Your task to perform on an android device: Go to Android settings Image 0: 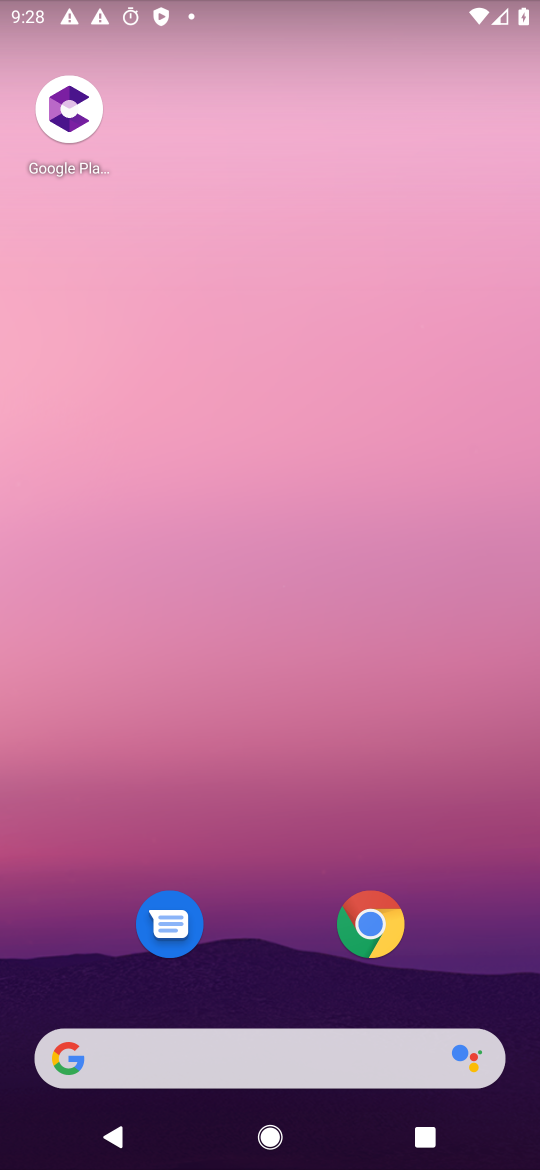
Step 0: drag from (332, 290) to (353, 208)
Your task to perform on an android device: Go to Android settings Image 1: 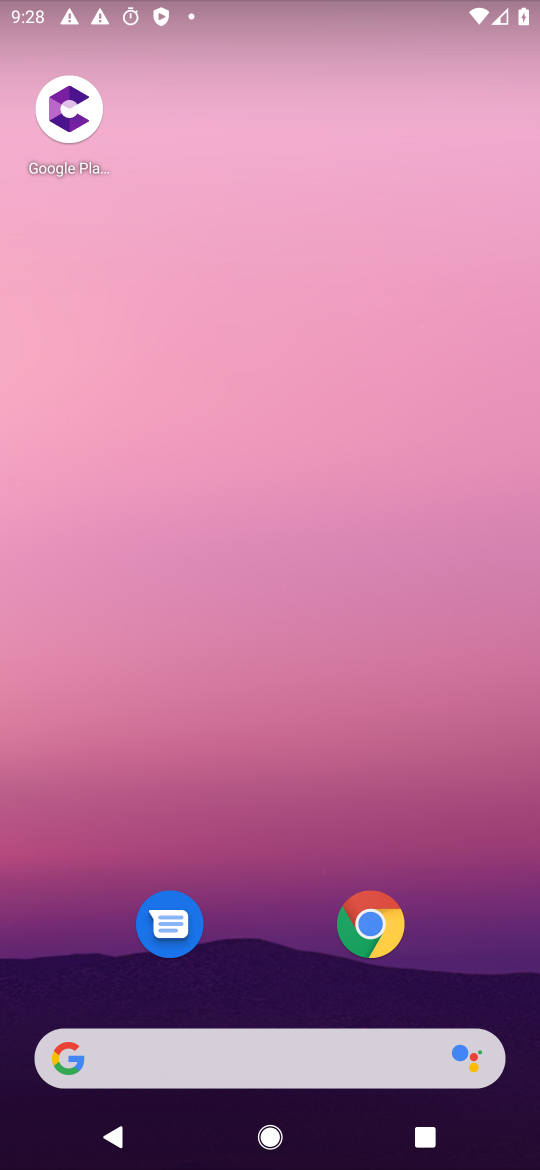
Step 1: drag from (267, 931) to (277, 166)
Your task to perform on an android device: Go to Android settings Image 2: 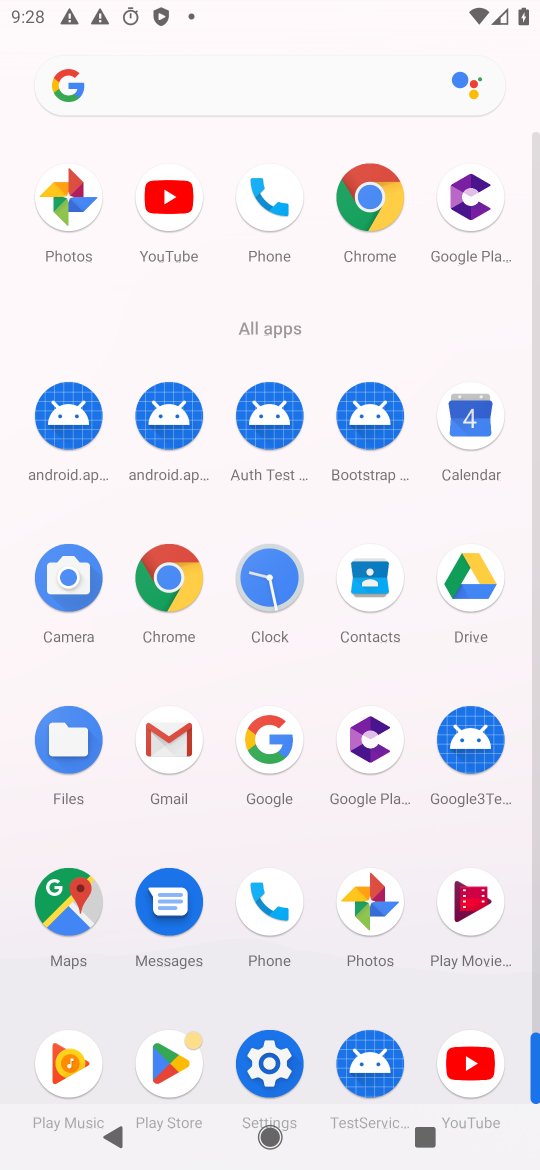
Step 2: click (269, 1038)
Your task to perform on an android device: Go to Android settings Image 3: 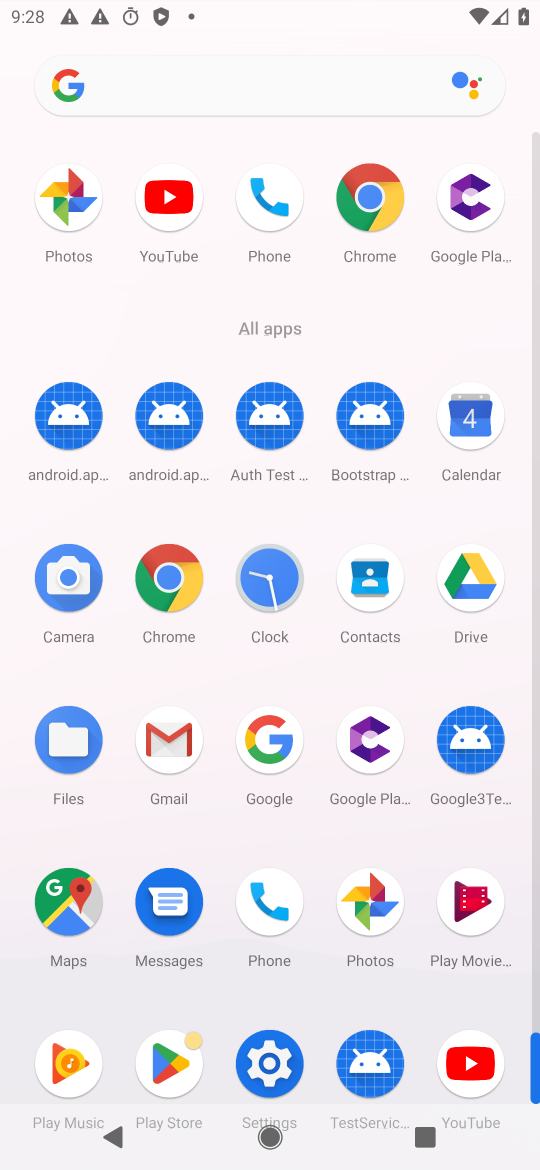
Step 3: click (262, 1031)
Your task to perform on an android device: Go to Android settings Image 4: 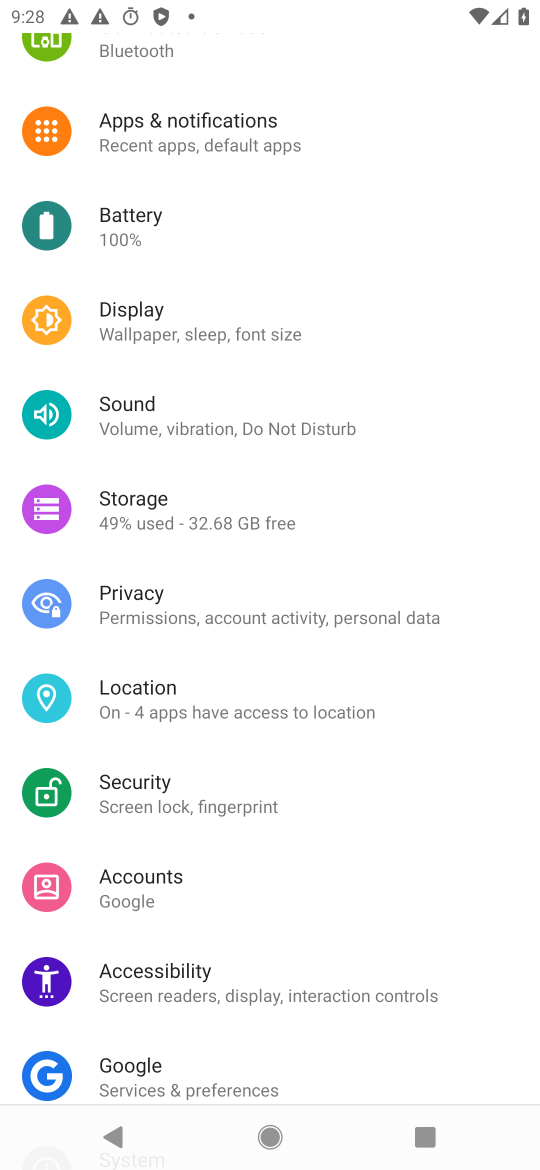
Step 4: drag from (266, 986) to (357, 164)
Your task to perform on an android device: Go to Android settings Image 5: 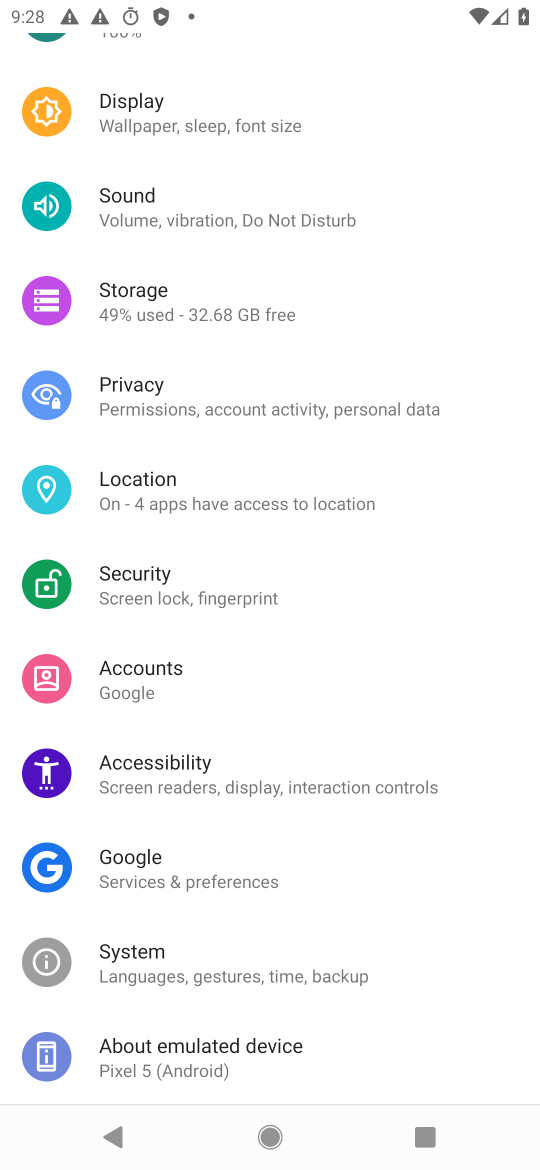
Step 5: click (231, 1046)
Your task to perform on an android device: Go to Android settings Image 6: 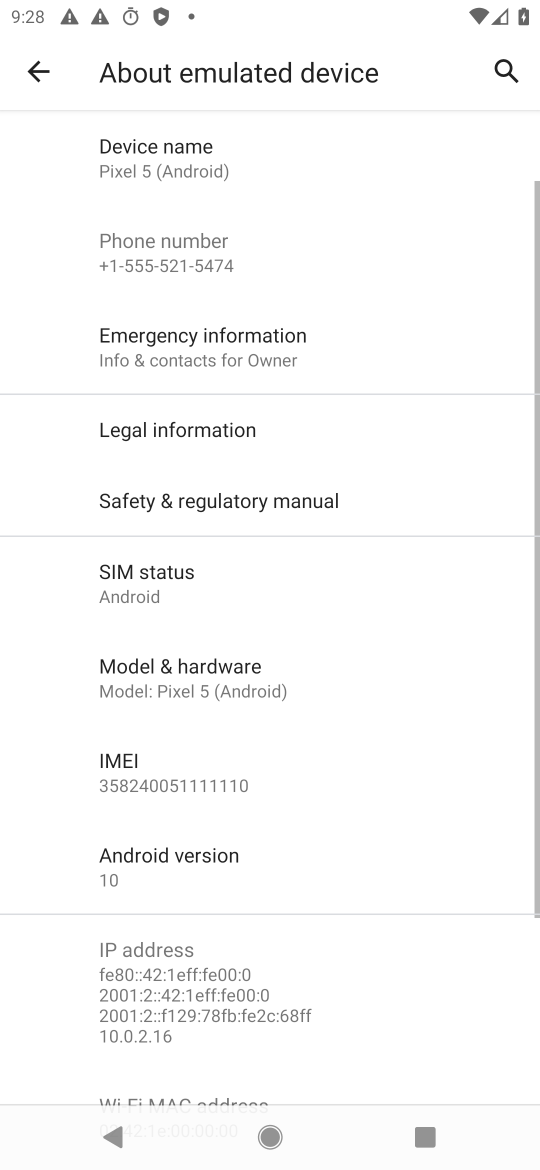
Step 6: click (192, 851)
Your task to perform on an android device: Go to Android settings Image 7: 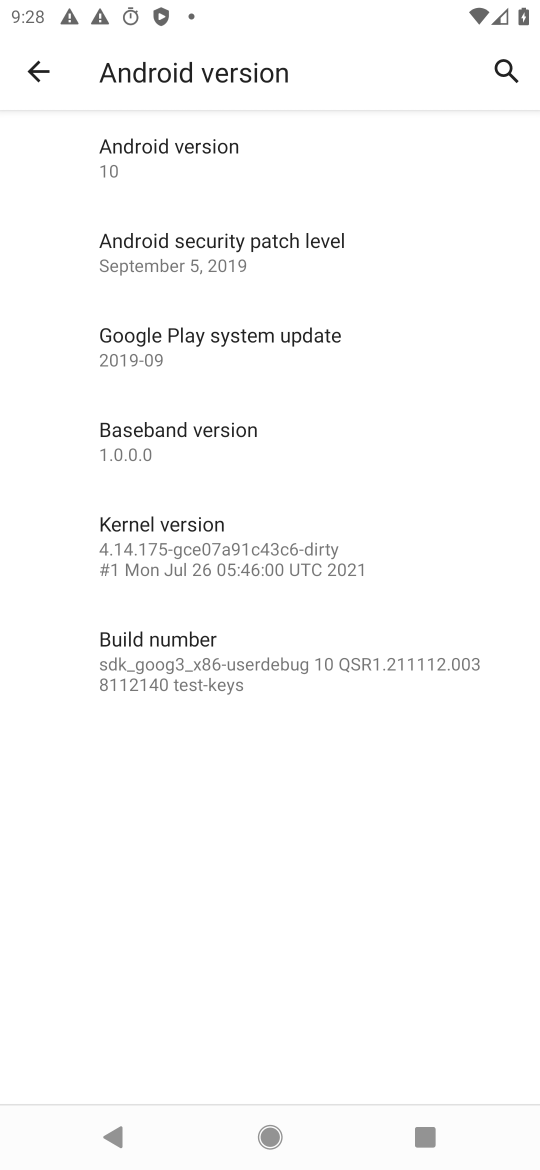
Step 7: drag from (212, 865) to (301, 268)
Your task to perform on an android device: Go to Android settings Image 8: 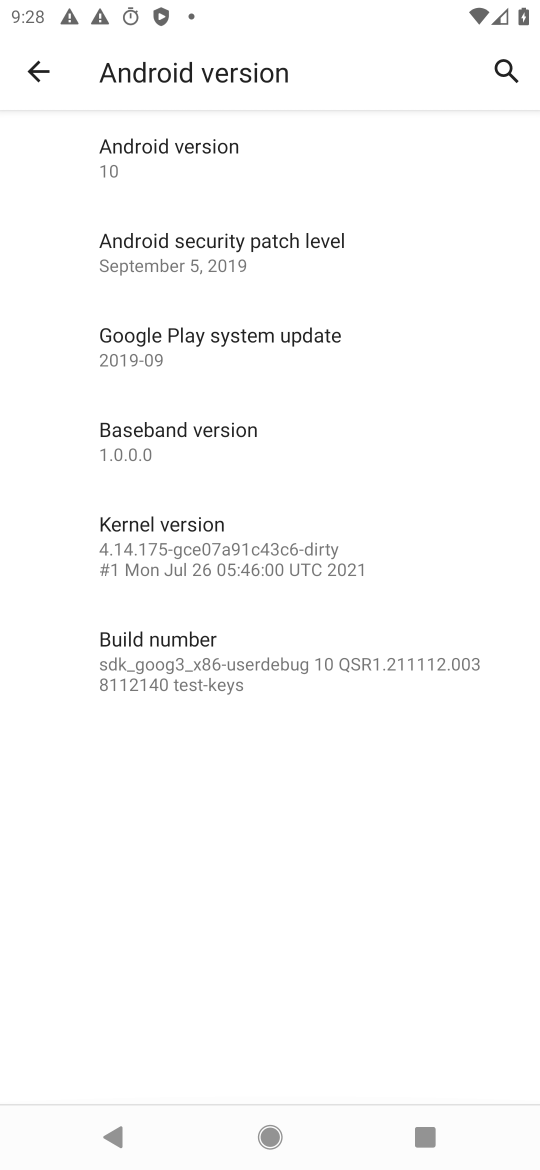
Step 8: click (242, 152)
Your task to perform on an android device: Go to Android settings Image 9: 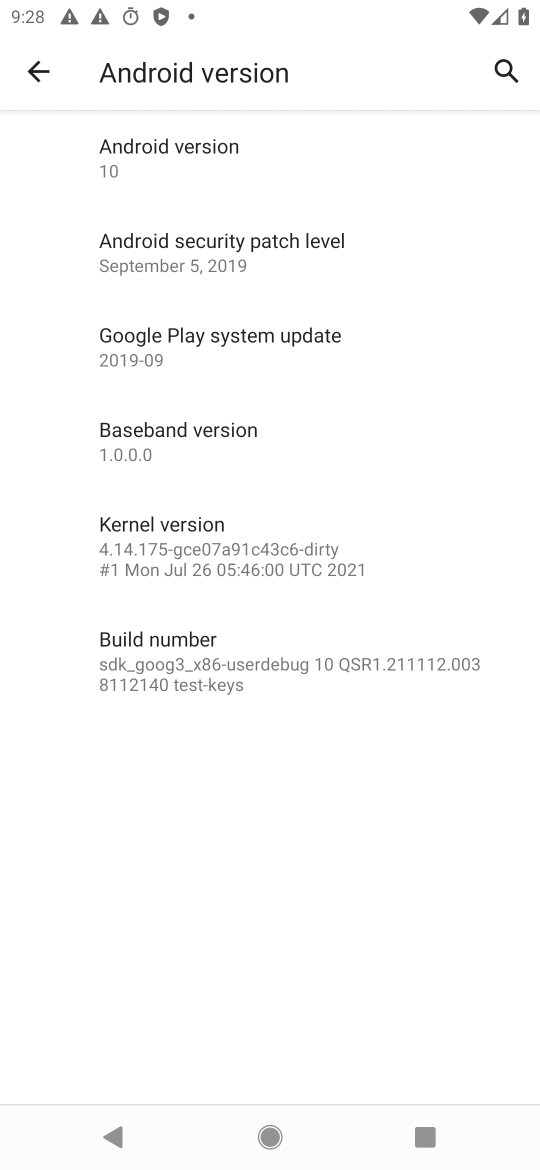
Step 9: click (242, 152)
Your task to perform on an android device: Go to Android settings Image 10: 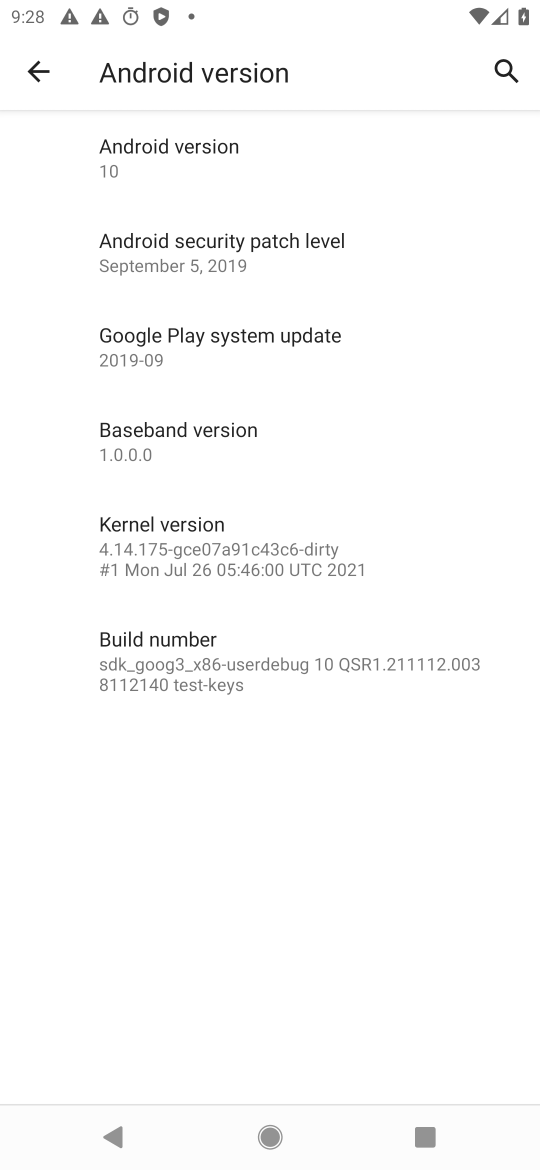
Step 10: task complete